Your task to perform on an android device: Open Amazon Image 0: 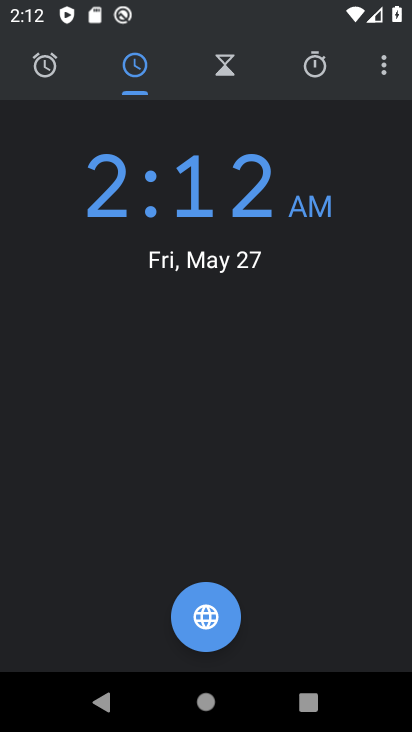
Step 0: press home button
Your task to perform on an android device: Open Amazon Image 1: 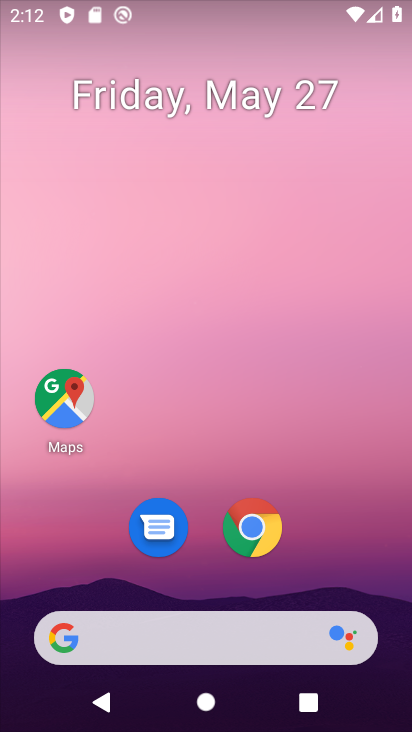
Step 1: drag from (237, 579) to (337, 255)
Your task to perform on an android device: Open Amazon Image 2: 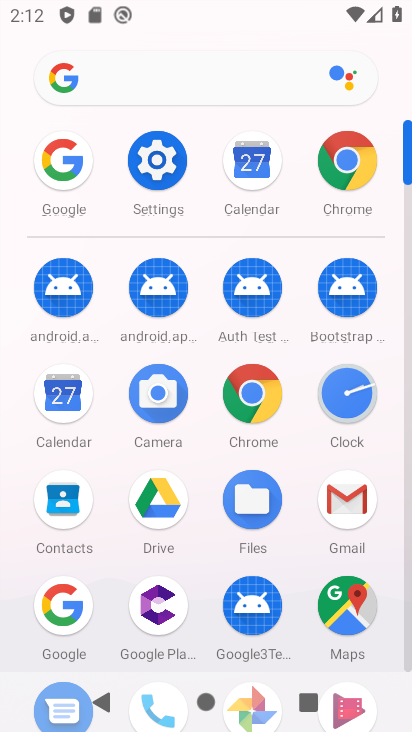
Step 2: click (258, 392)
Your task to perform on an android device: Open Amazon Image 3: 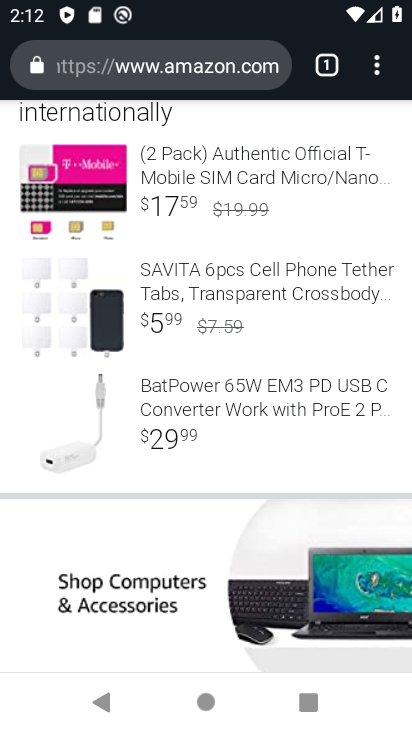
Step 3: drag from (239, 176) to (264, 502)
Your task to perform on an android device: Open Amazon Image 4: 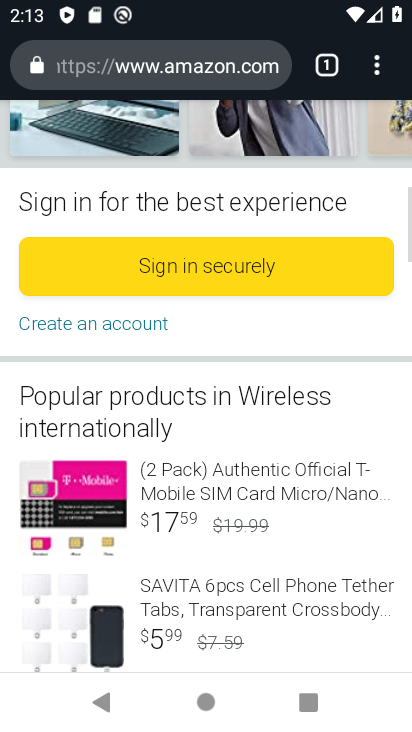
Step 4: click (312, 606)
Your task to perform on an android device: Open Amazon Image 5: 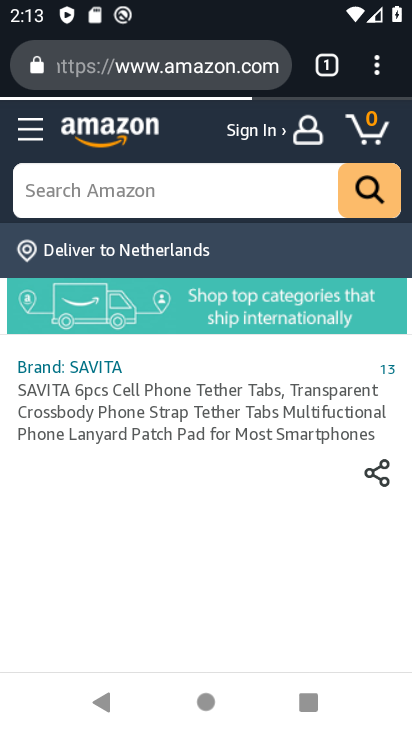
Step 5: task complete